Your task to perform on an android device: empty trash in the gmail app Image 0: 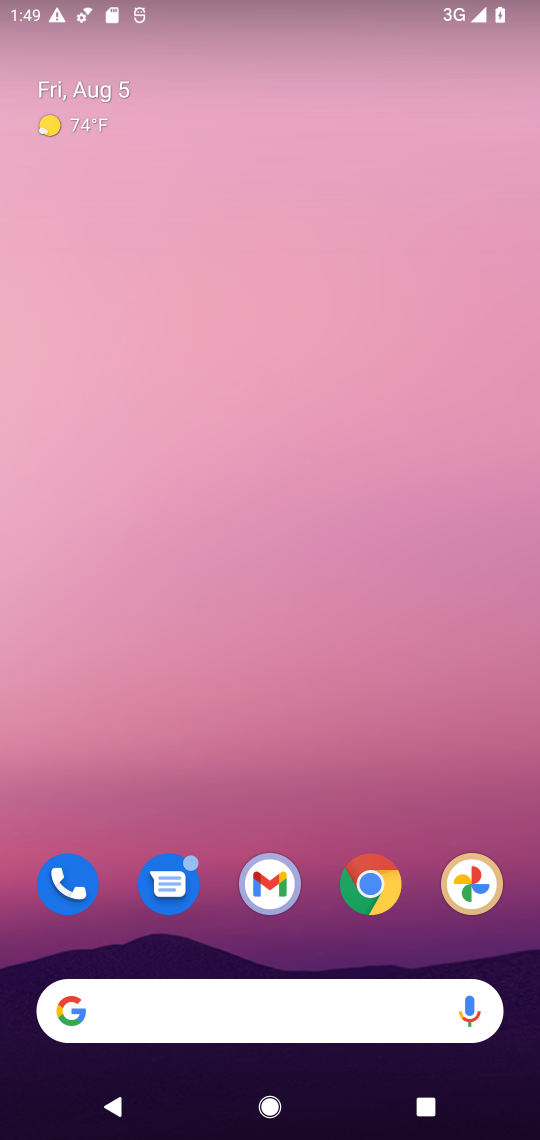
Step 0: drag from (425, 949) to (295, 34)
Your task to perform on an android device: empty trash in the gmail app Image 1: 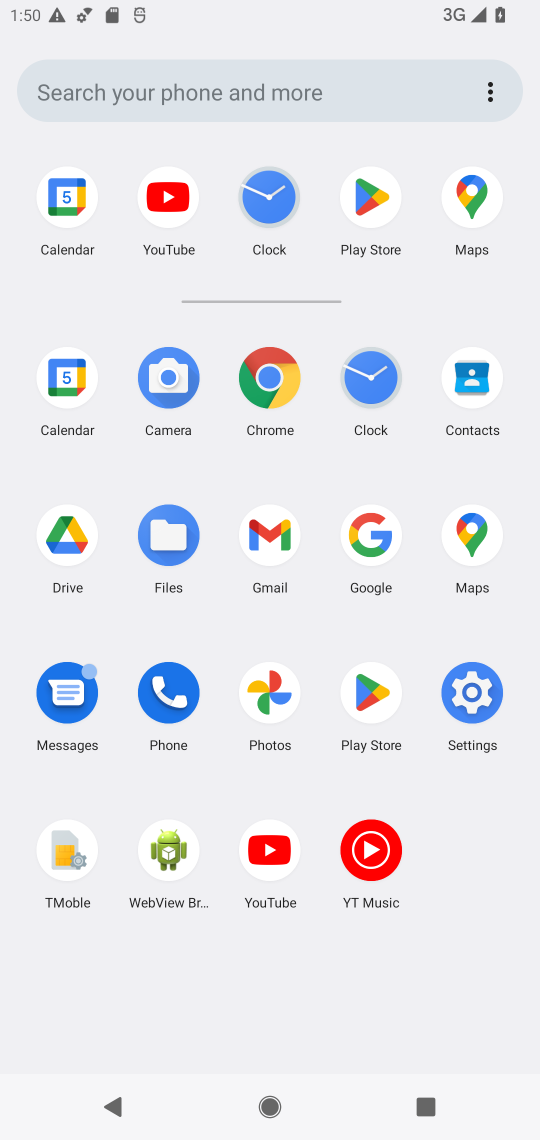
Step 1: click (259, 529)
Your task to perform on an android device: empty trash in the gmail app Image 2: 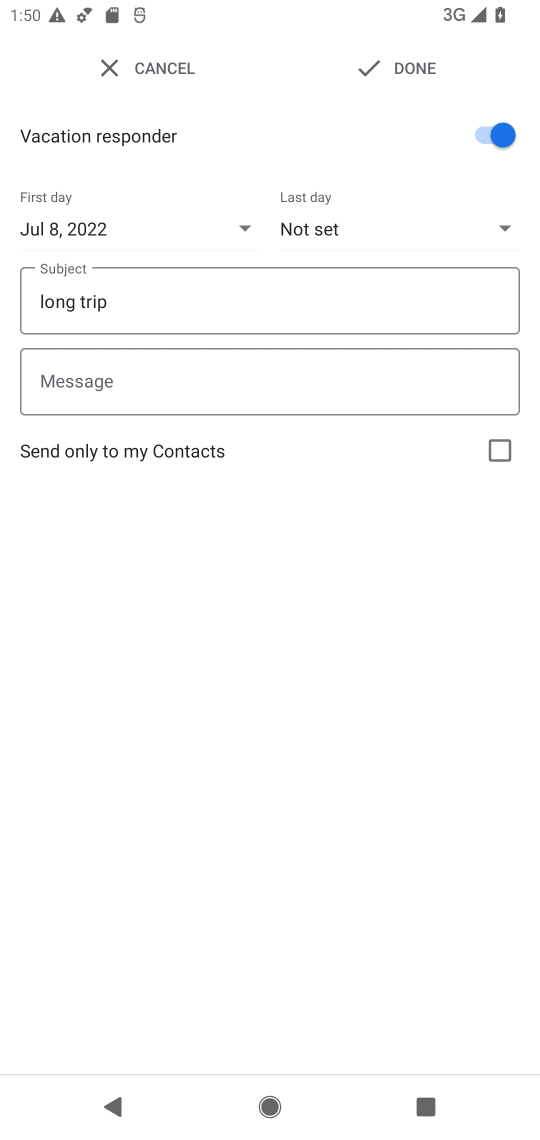
Step 2: press back button
Your task to perform on an android device: empty trash in the gmail app Image 3: 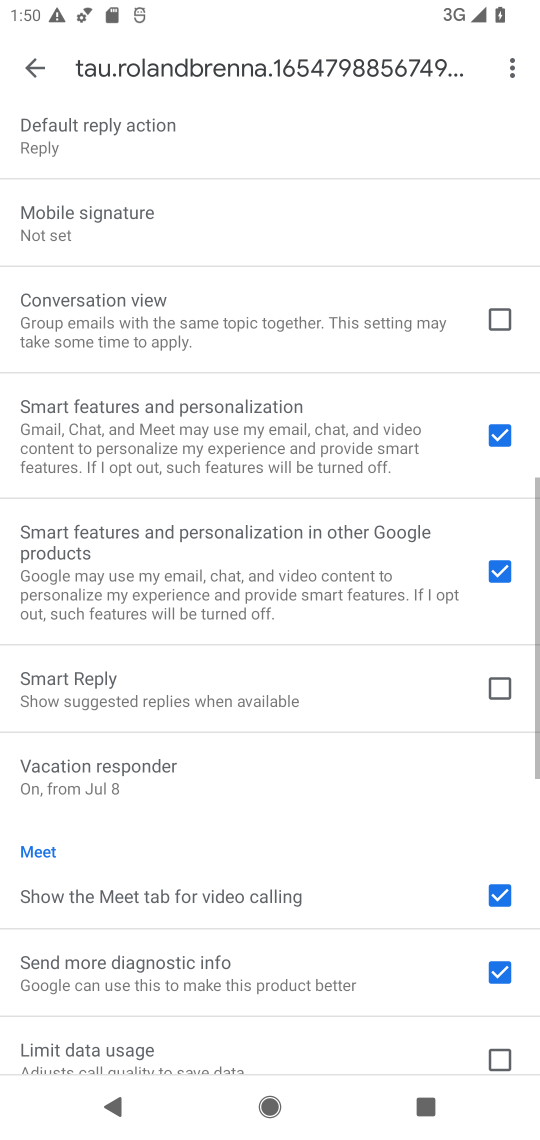
Step 3: press back button
Your task to perform on an android device: empty trash in the gmail app Image 4: 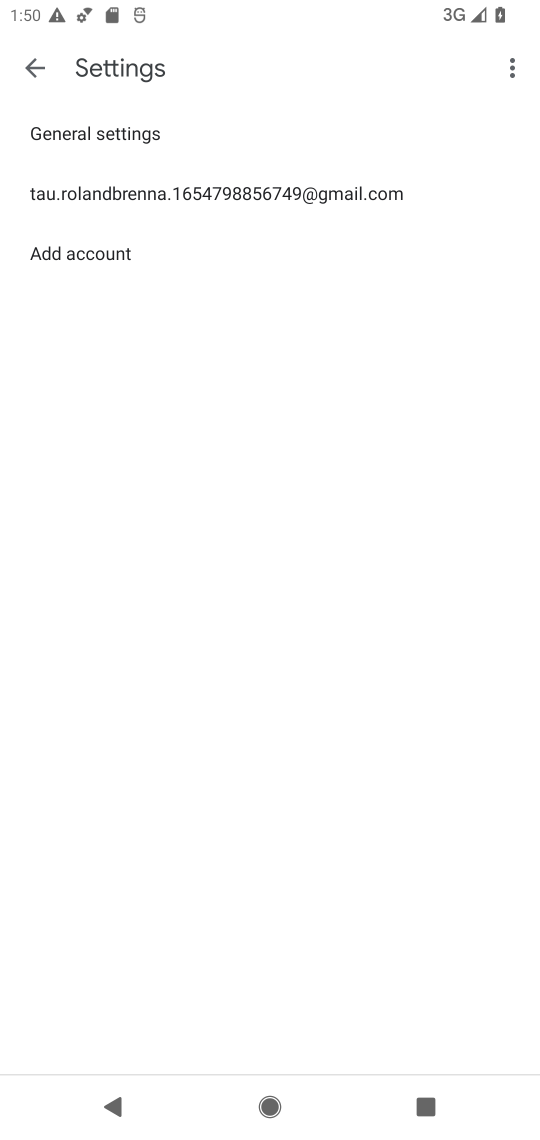
Step 4: press back button
Your task to perform on an android device: empty trash in the gmail app Image 5: 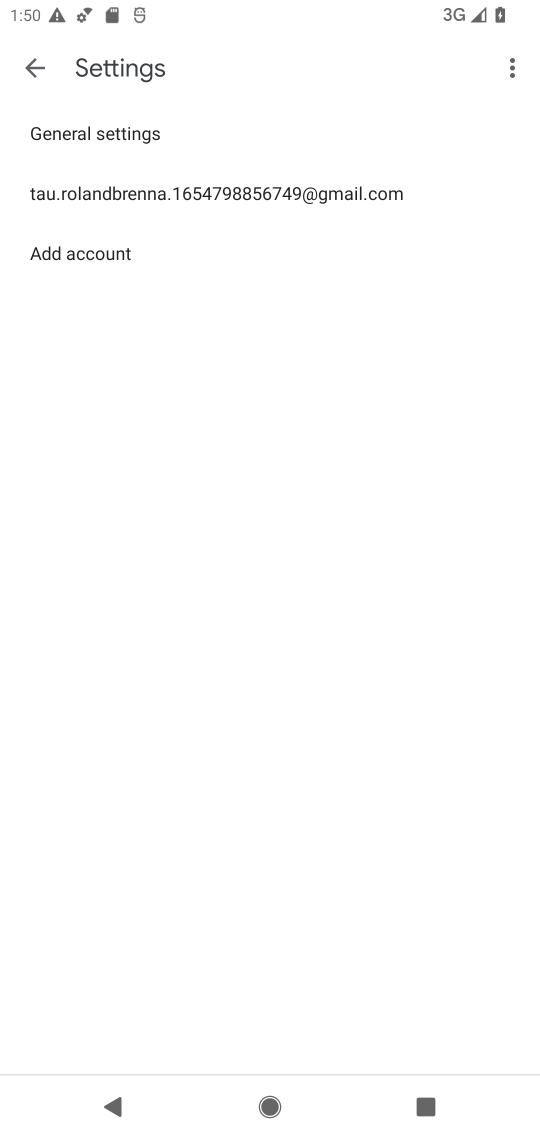
Step 5: press back button
Your task to perform on an android device: empty trash in the gmail app Image 6: 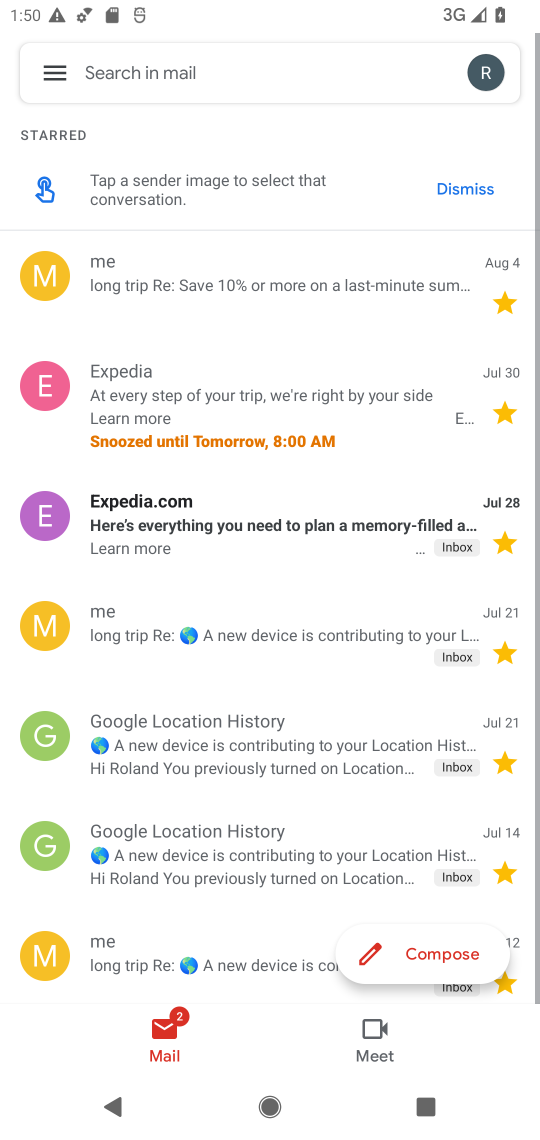
Step 6: click (51, 77)
Your task to perform on an android device: empty trash in the gmail app Image 7: 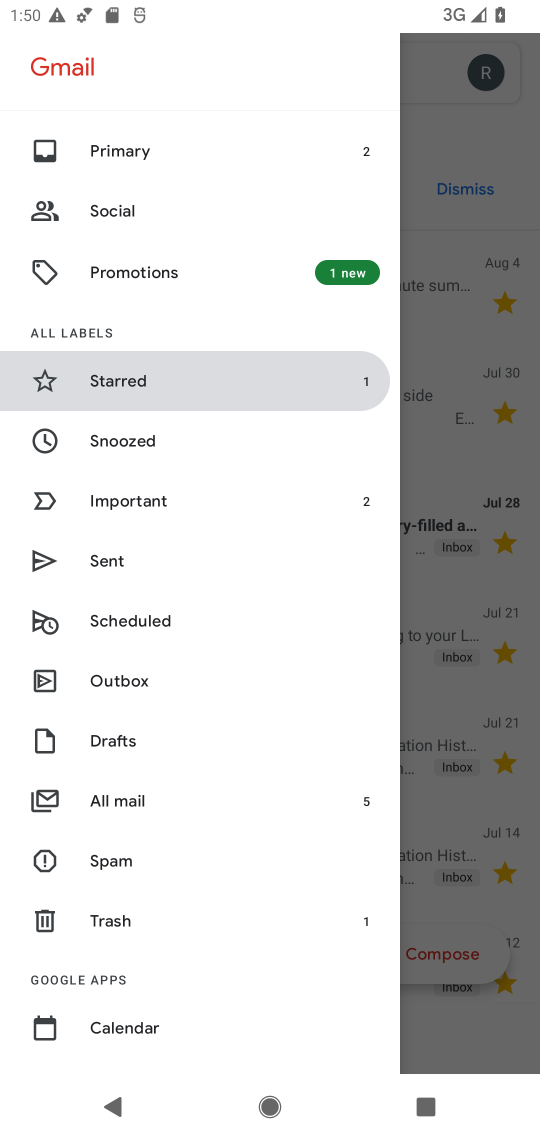
Step 7: click (118, 926)
Your task to perform on an android device: empty trash in the gmail app Image 8: 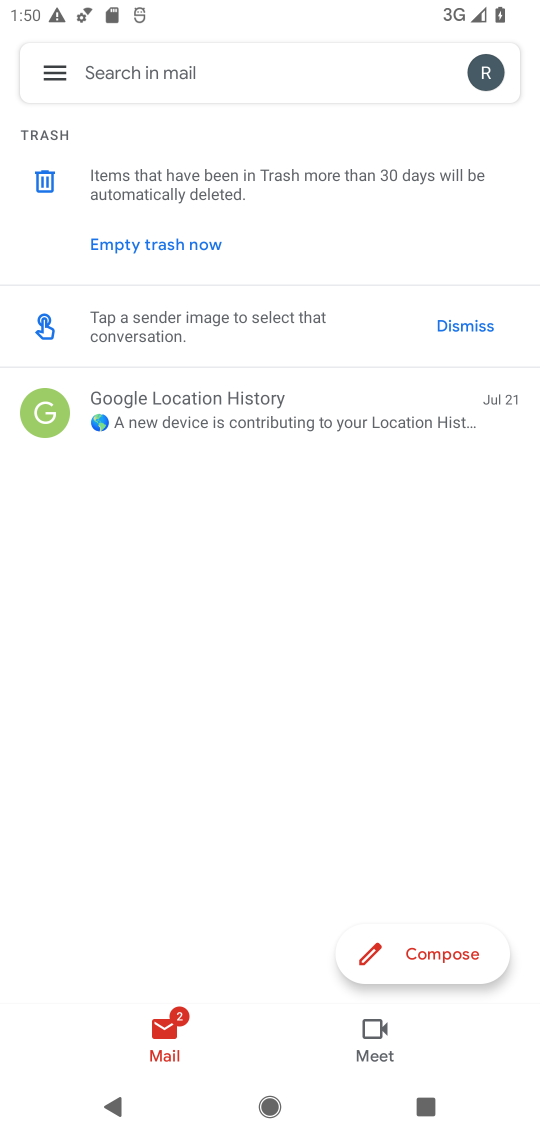
Step 8: click (179, 248)
Your task to perform on an android device: empty trash in the gmail app Image 9: 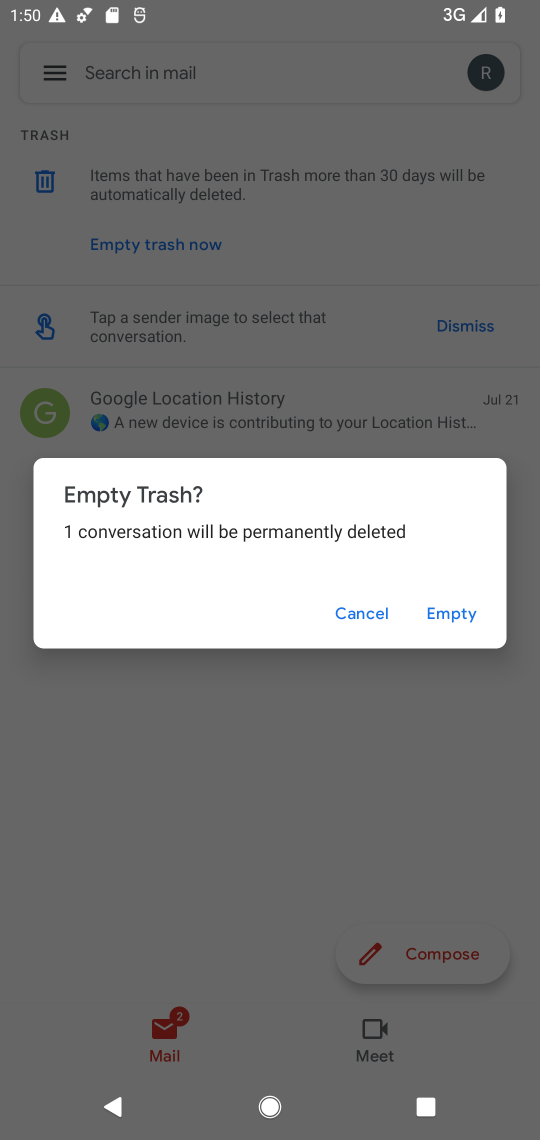
Step 9: click (452, 617)
Your task to perform on an android device: empty trash in the gmail app Image 10: 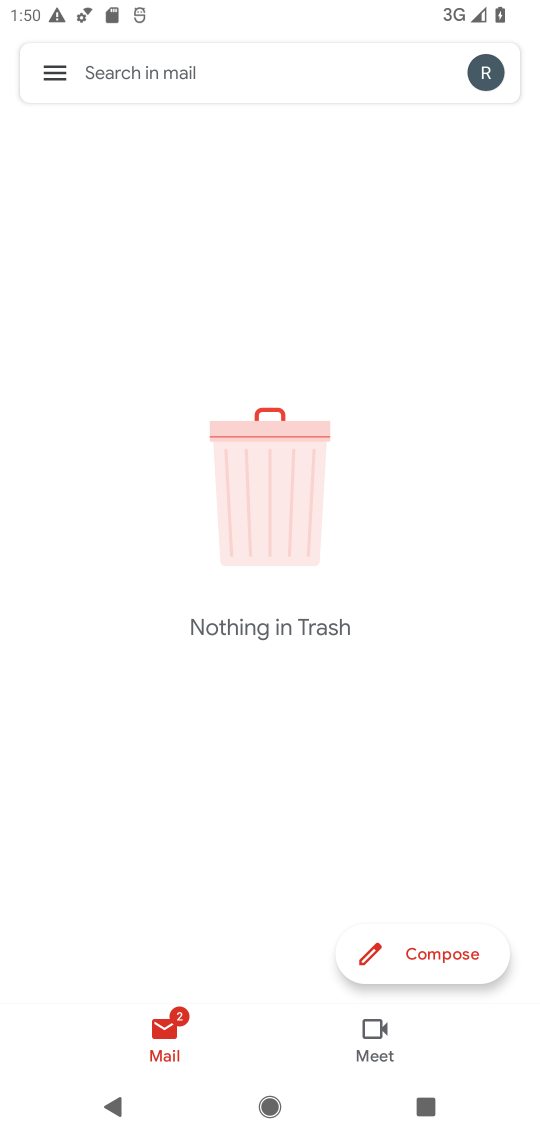
Step 10: task complete